Your task to perform on an android device: turn on showing notifications on the lock screen Image 0: 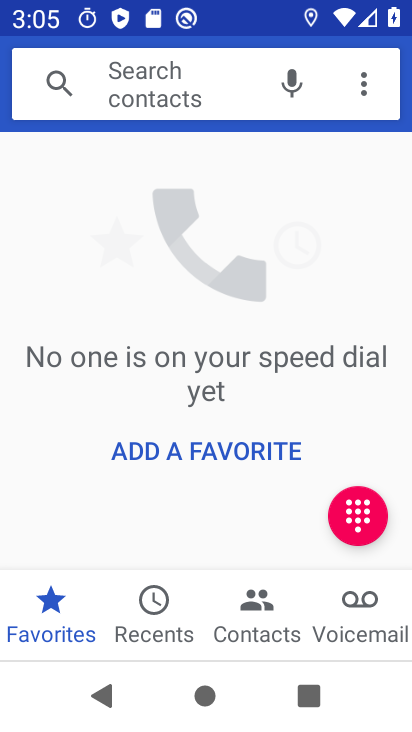
Step 0: press home button
Your task to perform on an android device: turn on showing notifications on the lock screen Image 1: 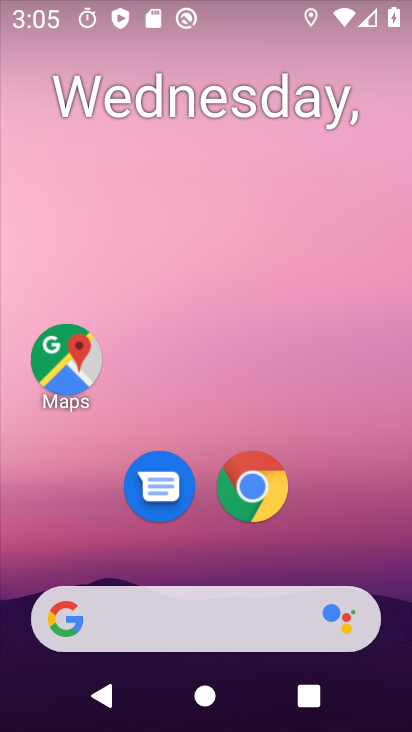
Step 1: drag from (328, 328) to (323, 0)
Your task to perform on an android device: turn on showing notifications on the lock screen Image 2: 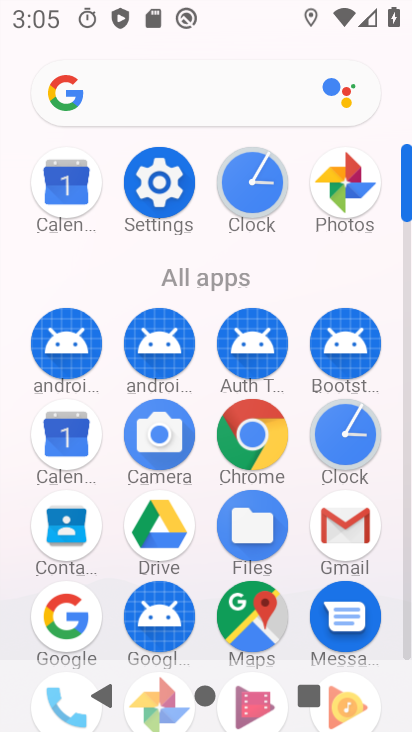
Step 2: click (152, 171)
Your task to perform on an android device: turn on showing notifications on the lock screen Image 3: 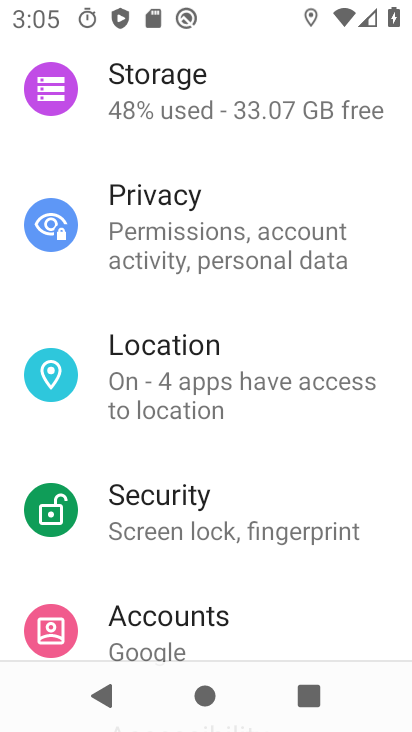
Step 3: drag from (177, 117) to (271, 551)
Your task to perform on an android device: turn on showing notifications on the lock screen Image 4: 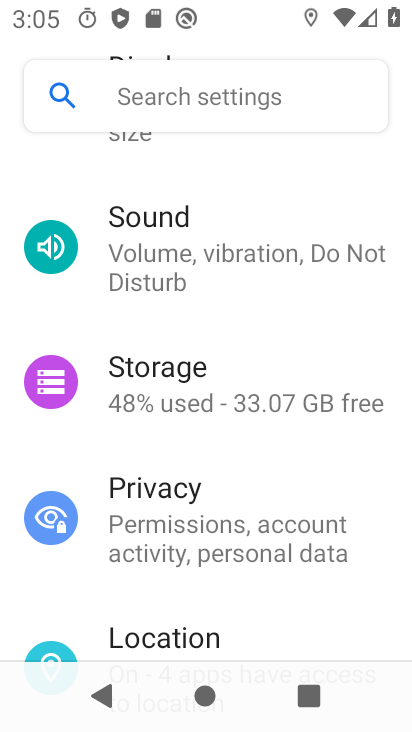
Step 4: drag from (189, 217) to (291, 601)
Your task to perform on an android device: turn on showing notifications on the lock screen Image 5: 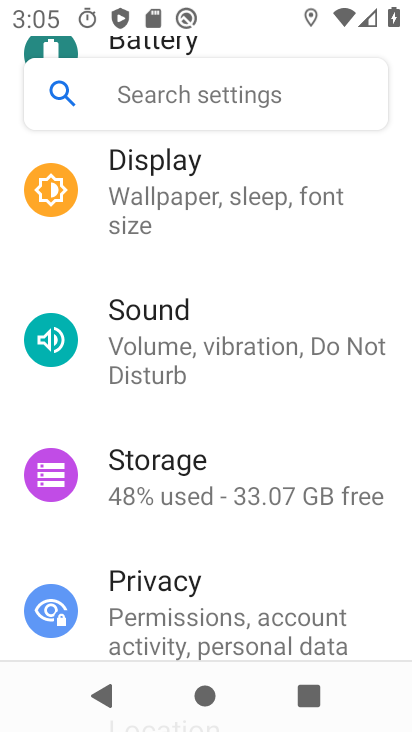
Step 5: drag from (185, 177) to (314, 619)
Your task to perform on an android device: turn on showing notifications on the lock screen Image 6: 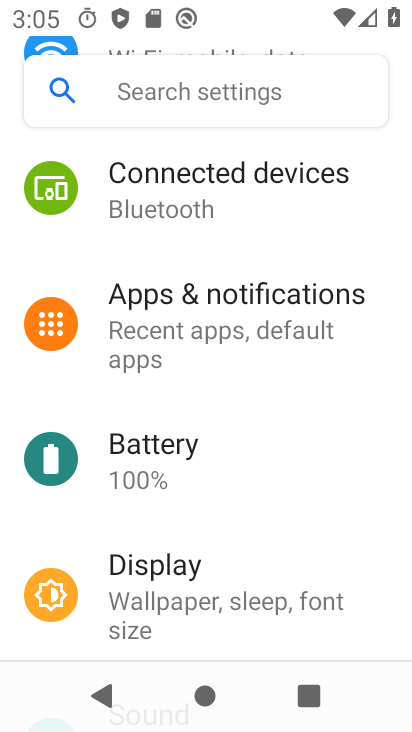
Step 6: click (205, 312)
Your task to perform on an android device: turn on showing notifications on the lock screen Image 7: 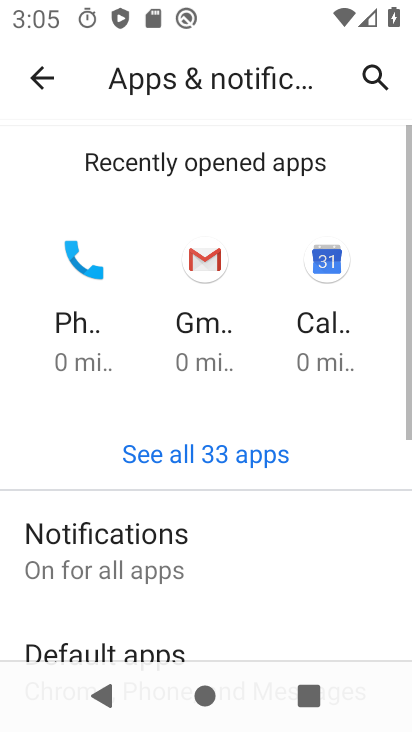
Step 7: click (155, 563)
Your task to perform on an android device: turn on showing notifications on the lock screen Image 8: 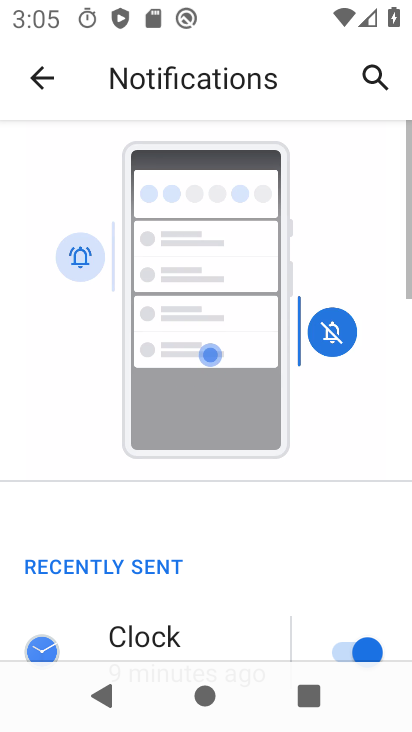
Step 8: drag from (241, 550) to (230, 42)
Your task to perform on an android device: turn on showing notifications on the lock screen Image 9: 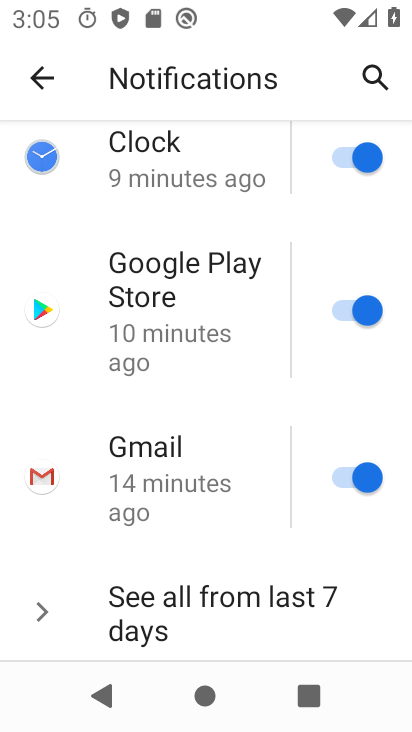
Step 9: drag from (240, 641) to (201, 57)
Your task to perform on an android device: turn on showing notifications on the lock screen Image 10: 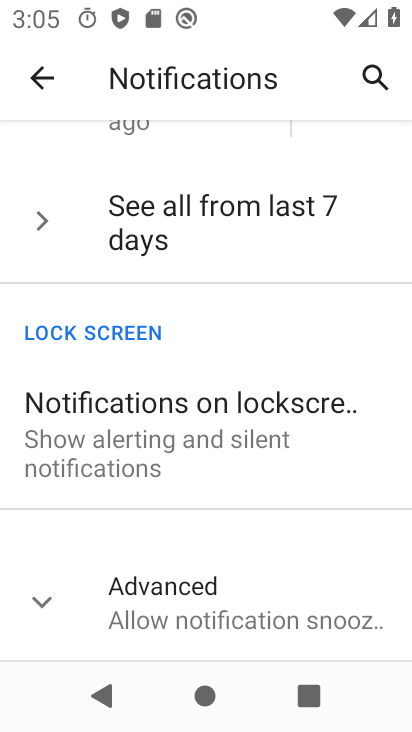
Step 10: click (123, 438)
Your task to perform on an android device: turn on showing notifications on the lock screen Image 11: 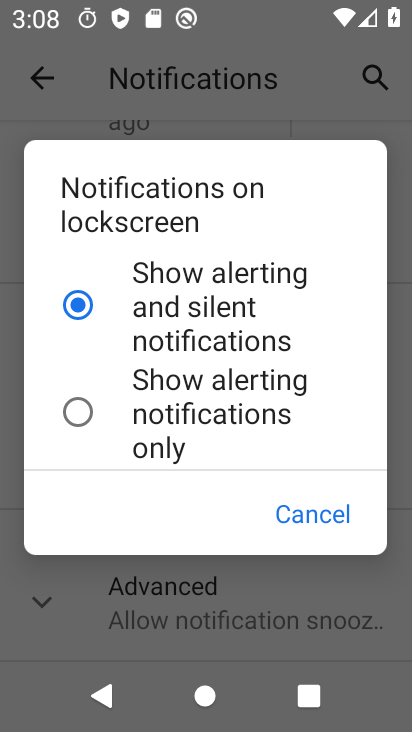
Step 11: task complete